Your task to perform on an android device: change the clock display to show seconds Image 0: 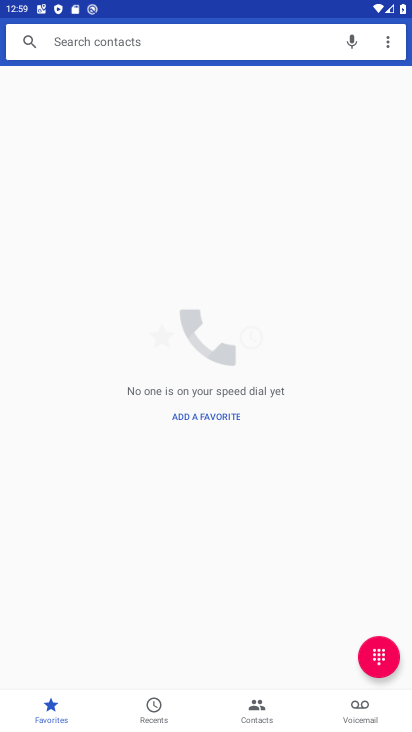
Step 0: press home button
Your task to perform on an android device: change the clock display to show seconds Image 1: 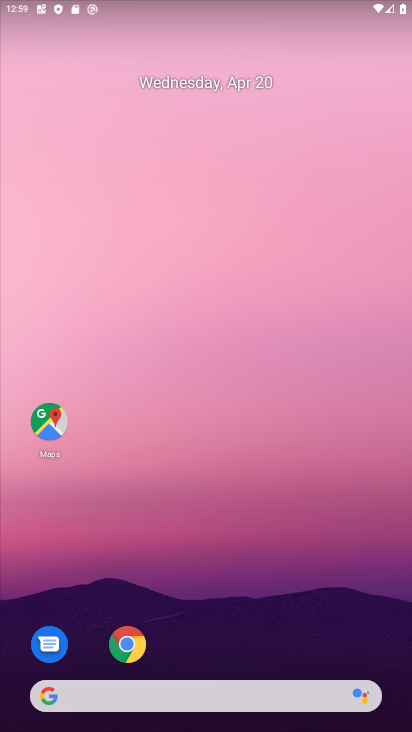
Step 1: drag from (219, 525) to (277, 3)
Your task to perform on an android device: change the clock display to show seconds Image 2: 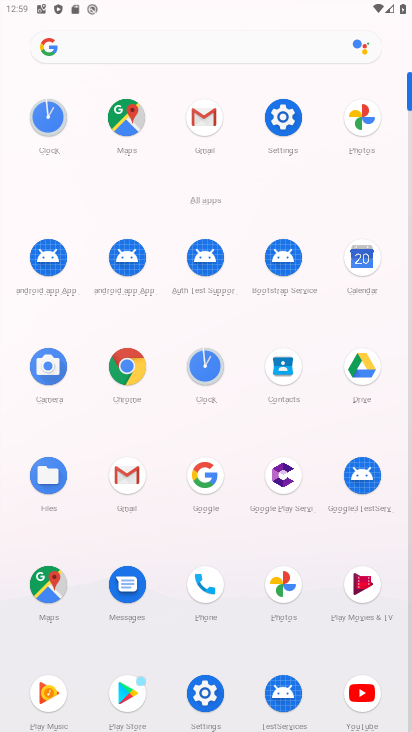
Step 2: click (214, 373)
Your task to perform on an android device: change the clock display to show seconds Image 3: 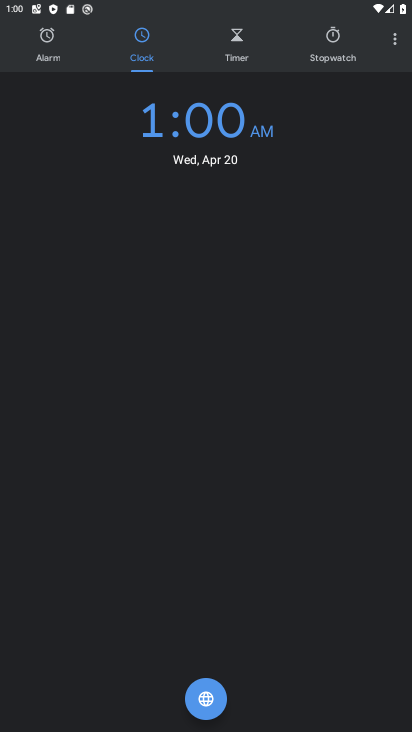
Step 3: click (395, 34)
Your task to perform on an android device: change the clock display to show seconds Image 4: 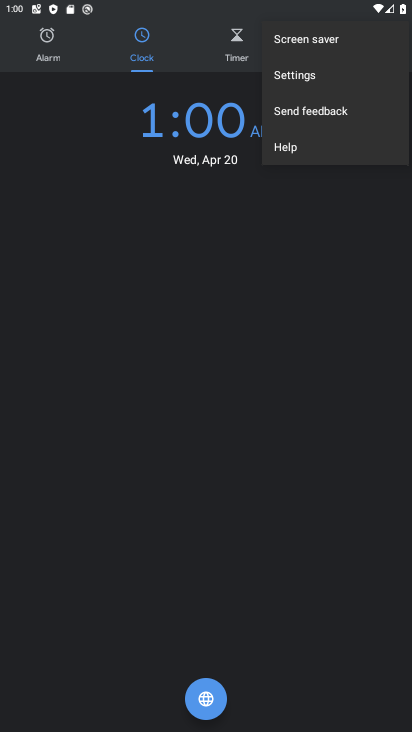
Step 4: click (324, 85)
Your task to perform on an android device: change the clock display to show seconds Image 5: 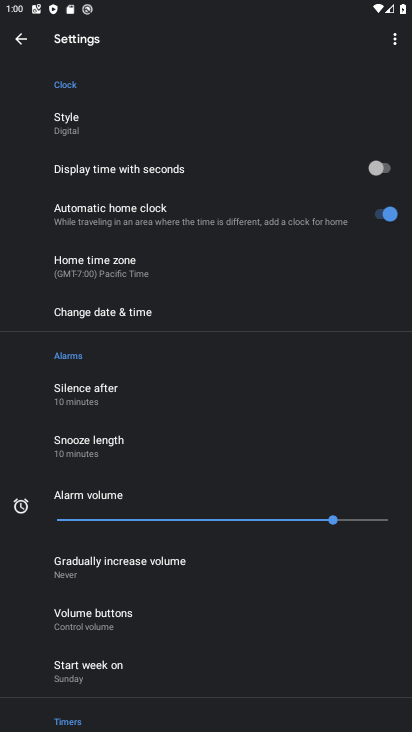
Step 5: click (378, 166)
Your task to perform on an android device: change the clock display to show seconds Image 6: 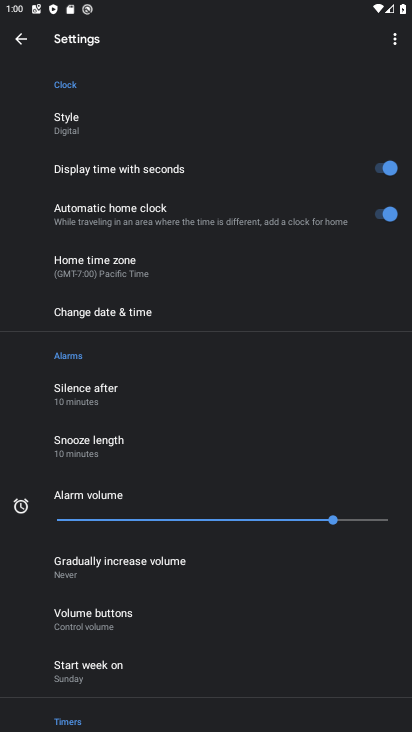
Step 6: task complete